Your task to perform on an android device: refresh tabs in the chrome app Image 0: 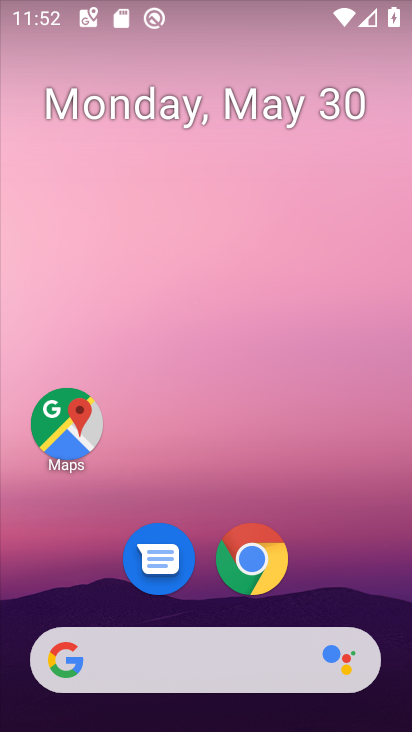
Step 0: click (277, 556)
Your task to perform on an android device: refresh tabs in the chrome app Image 1: 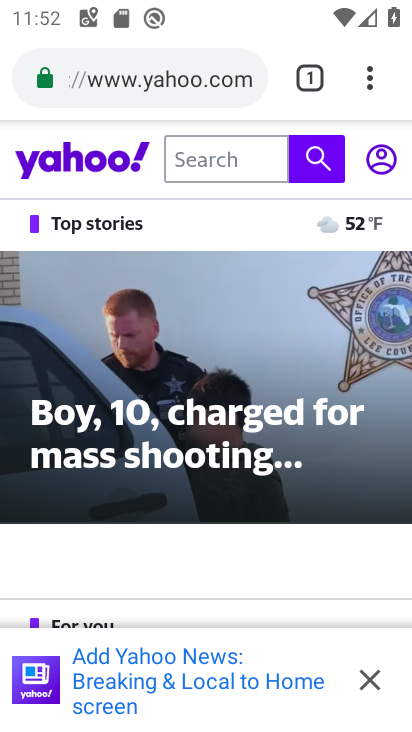
Step 1: click (372, 99)
Your task to perform on an android device: refresh tabs in the chrome app Image 2: 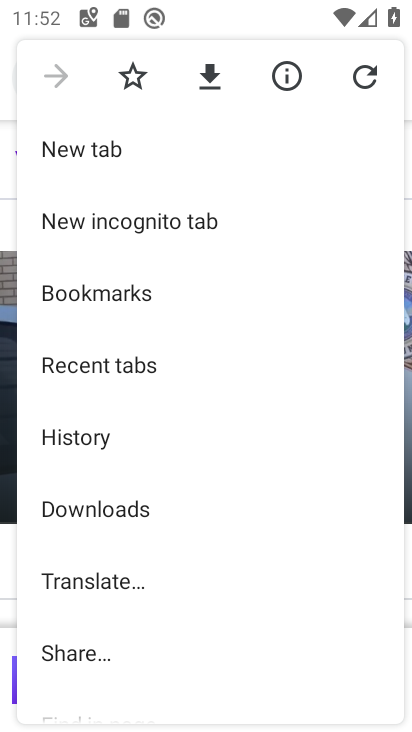
Step 2: click (369, 76)
Your task to perform on an android device: refresh tabs in the chrome app Image 3: 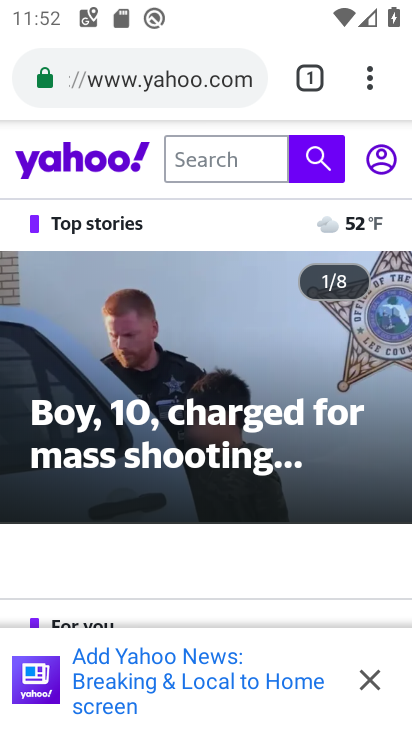
Step 3: task complete